Your task to perform on an android device: Open Google Image 0: 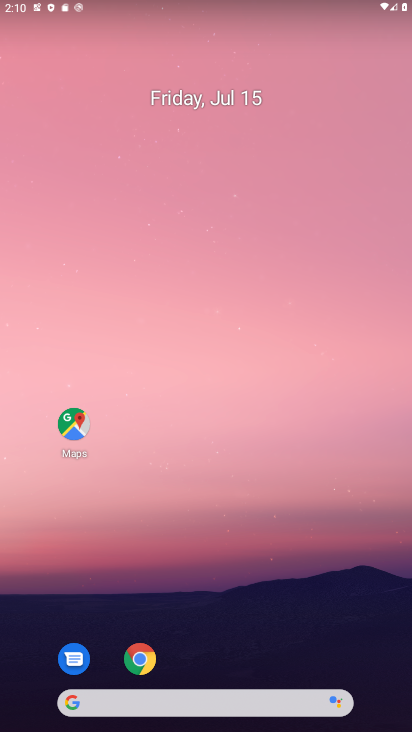
Step 0: drag from (262, 633) to (263, 55)
Your task to perform on an android device: Open Google Image 1: 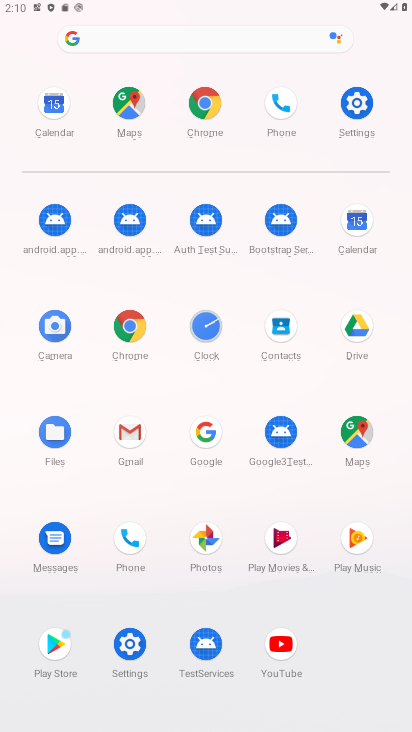
Step 1: click (205, 424)
Your task to perform on an android device: Open Google Image 2: 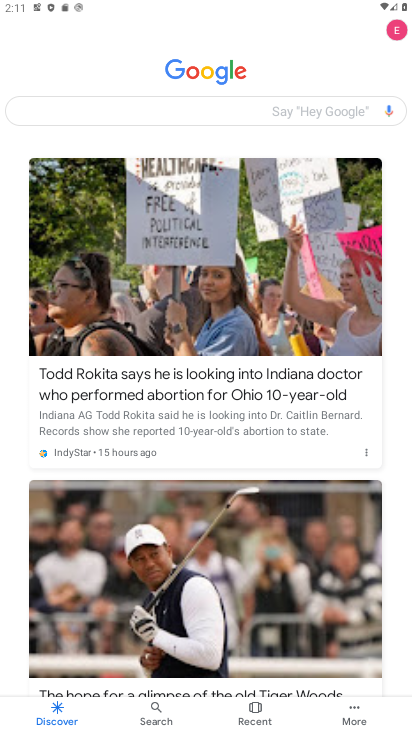
Step 2: task complete